Your task to perform on an android device: turn off location Image 0: 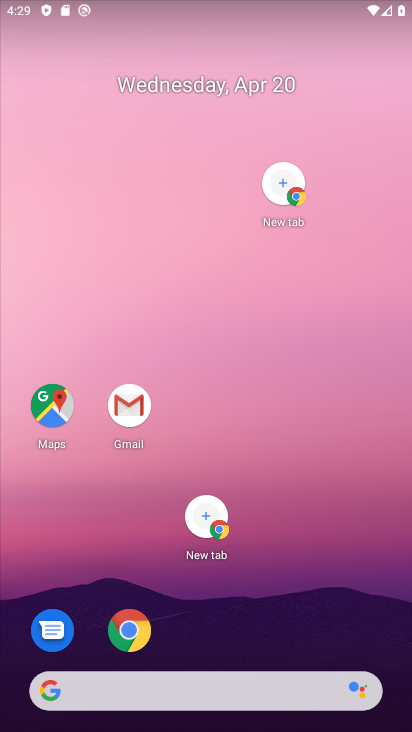
Step 0: click (404, 320)
Your task to perform on an android device: turn off location Image 1: 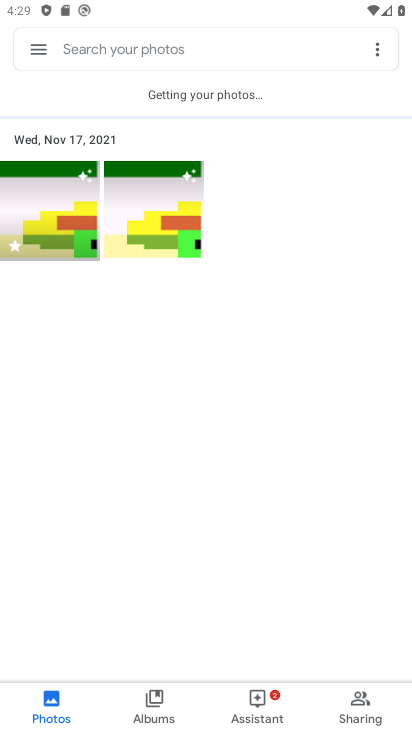
Step 1: press home button
Your task to perform on an android device: turn off location Image 2: 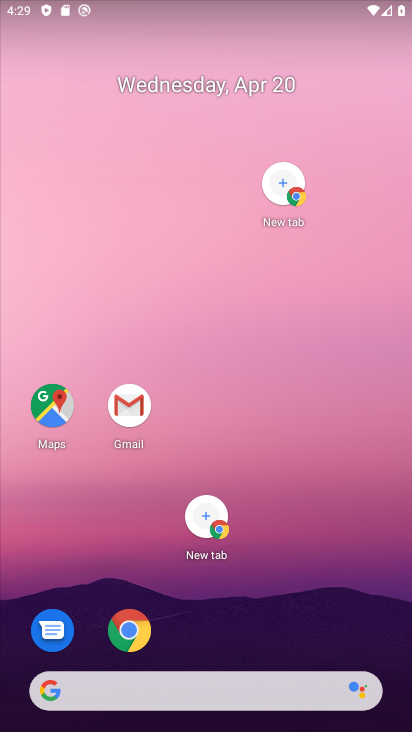
Step 2: drag from (303, 582) to (159, 92)
Your task to perform on an android device: turn off location Image 3: 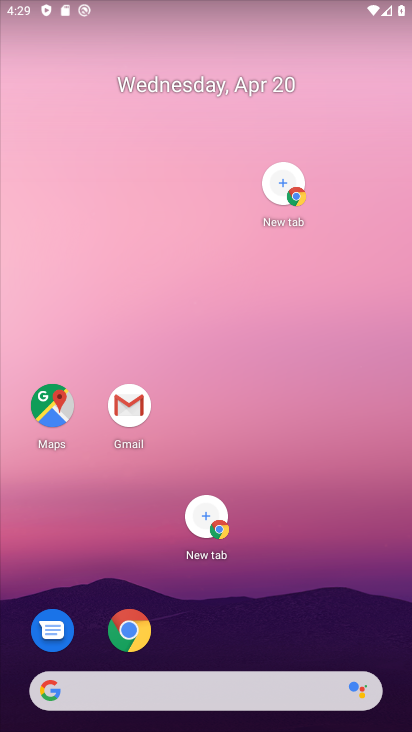
Step 3: drag from (318, 578) to (184, 176)
Your task to perform on an android device: turn off location Image 4: 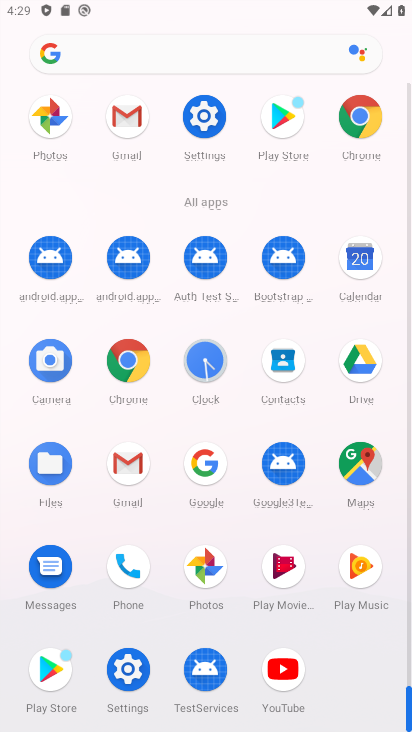
Step 4: click (204, 140)
Your task to perform on an android device: turn off location Image 5: 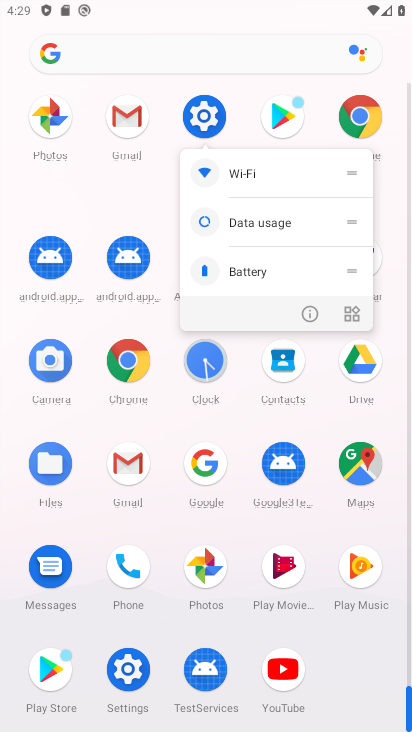
Step 5: click (204, 140)
Your task to perform on an android device: turn off location Image 6: 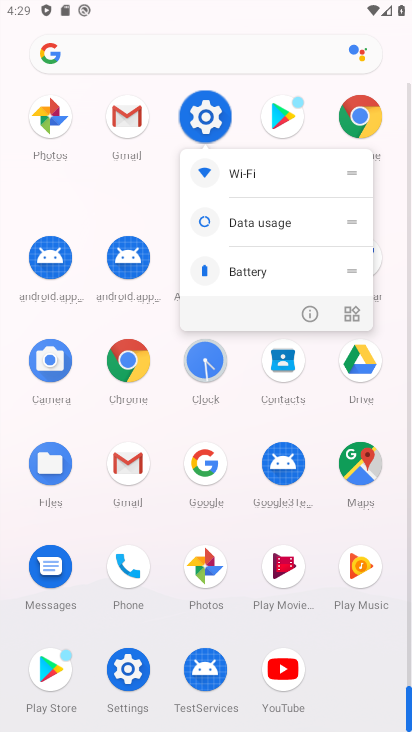
Step 6: click (202, 125)
Your task to perform on an android device: turn off location Image 7: 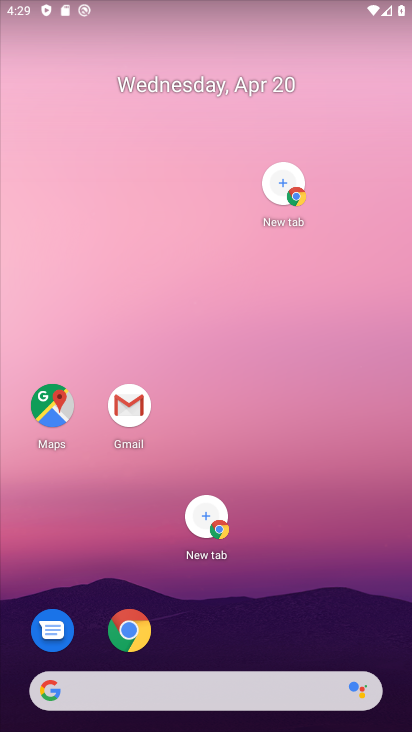
Step 7: drag from (180, 543) to (44, 96)
Your task to perform on an android device: turn off location Image 8: 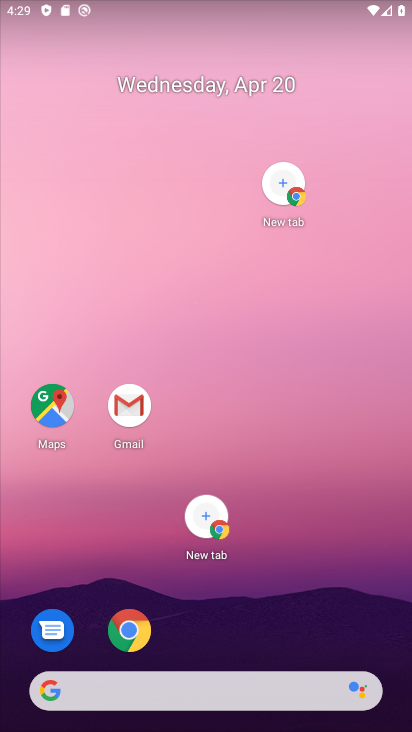
Step 8: drag from (251, 525) to (135, 196)
Your task to perform on an android device: turn off location Image 9: 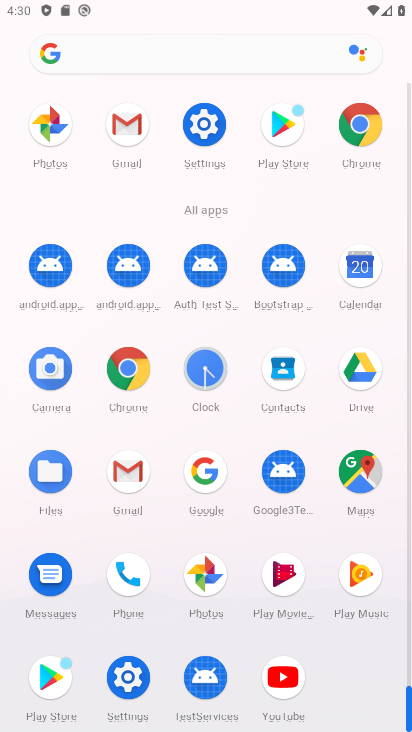
Step 9: click (126, 684)
Your task to perform on an android device: turn off location Image 10: 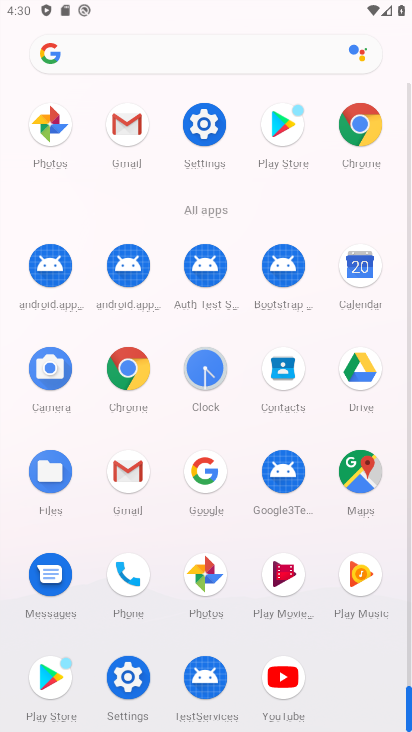
Step 10: click (130, 679)
Your task to perform on an android device: turn off location Image 11: 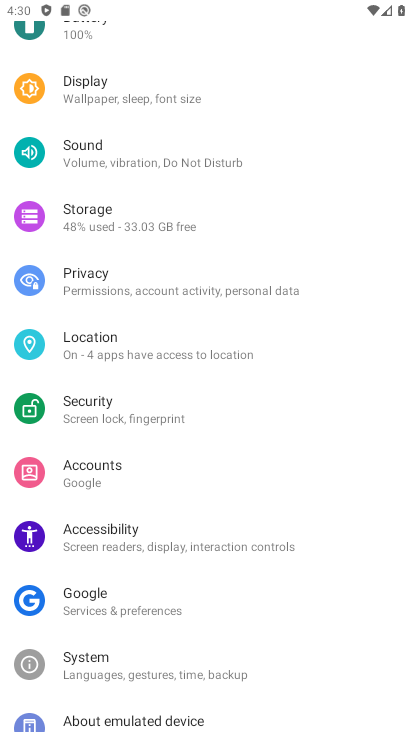
Step 11: click (132, 678)
Your task to perform on an android device: turn off location Image 12: 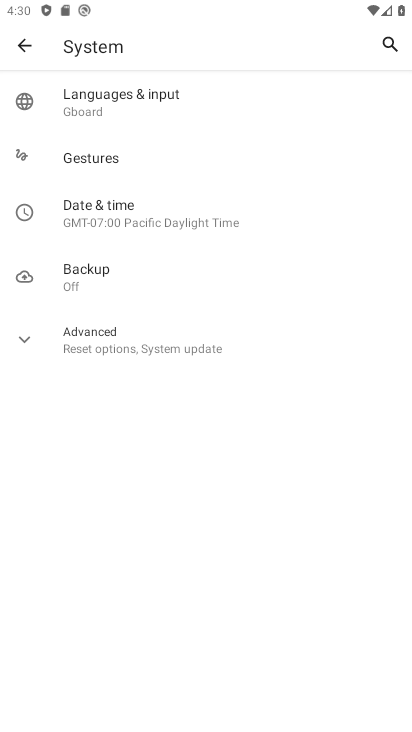
Step 12: click (17, 39)
Your task to perform on an android device: turn off location Image 13: 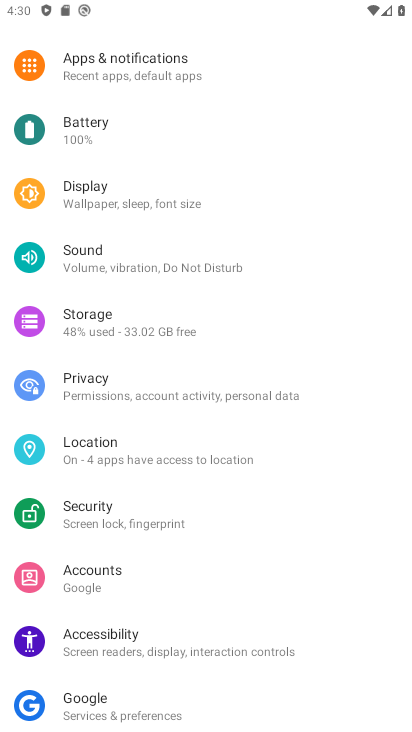
Step 13: click (125, 454)
Your task to perform on an android device: turn off location Image 14: 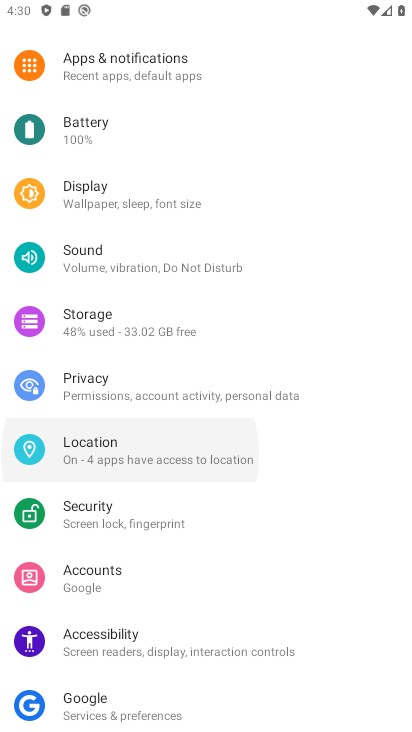
Step 14: click (125, 454)
Your task to perform on an android device: turn off location Image 15: 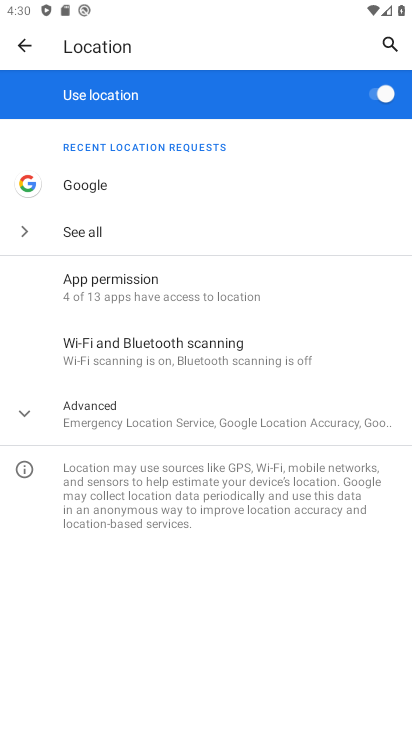
Step 15: click (379, 84)
Your task to perform on an android device: turn off location Image 16: 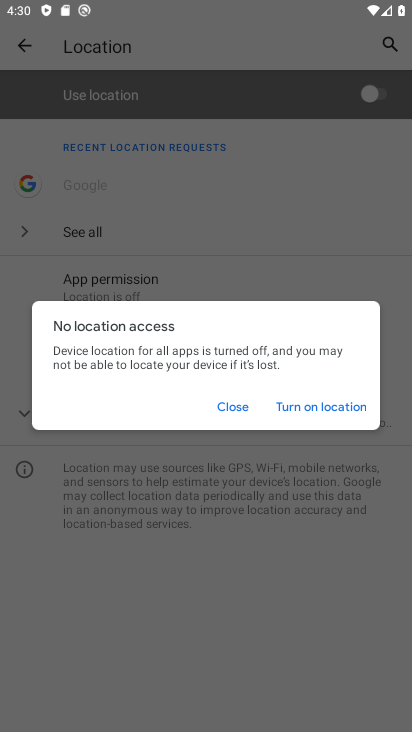
Step 16: task complete